Your task to perform on an android device: Open Chrome and go to settings Image 0: 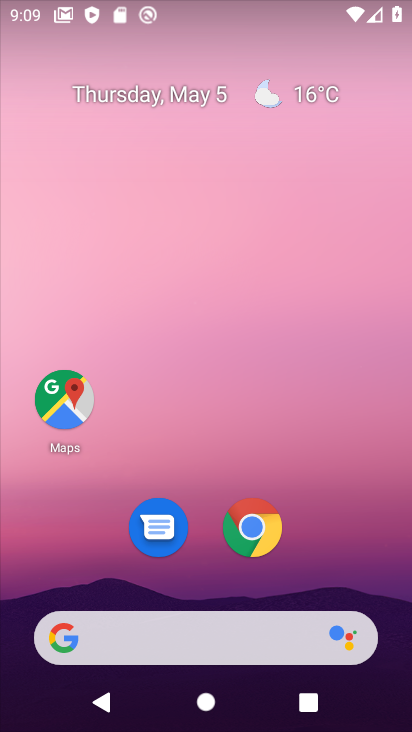
Step 0: click (264, 535)
Your task to perform on an android device: Open Chrome and go to settings Image 1: 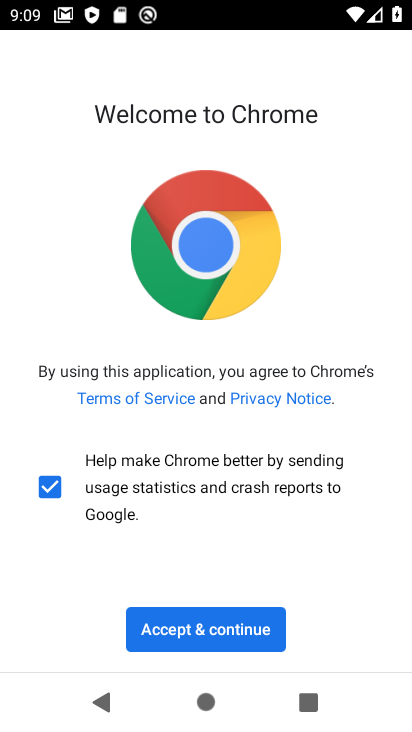
Step 1: click (260, 616)
Your task to perform on an android device: Open Chrome and go to settings Image 2: 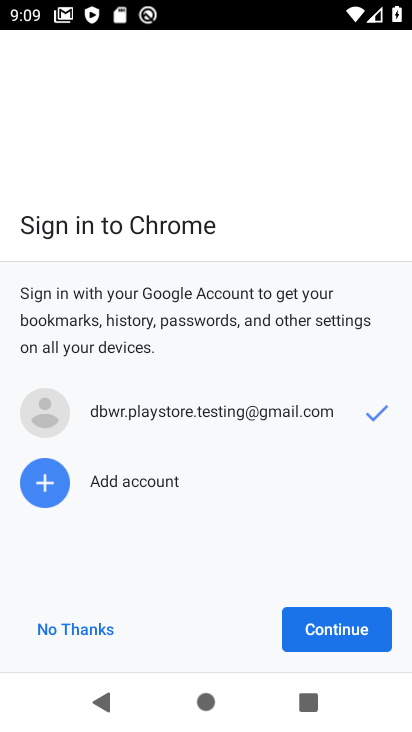
Step 2: click (360, 631)
Your task to perform on an android device: Open Chrome and go to settings Image 3: 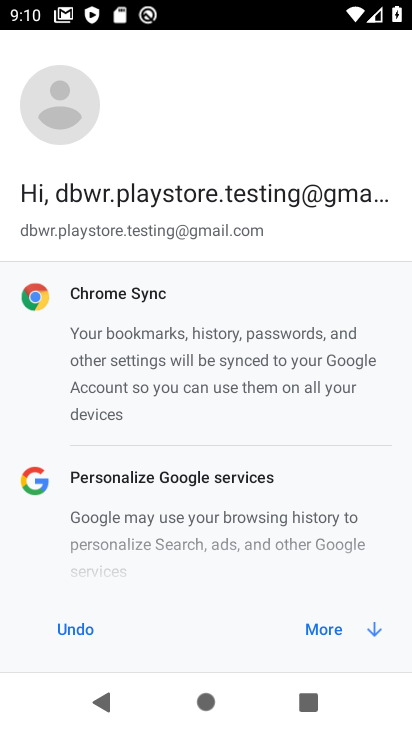
Step 3: click (361, 631)
Your task to perform on an android device: Open Chrome and go to settings Image 4: 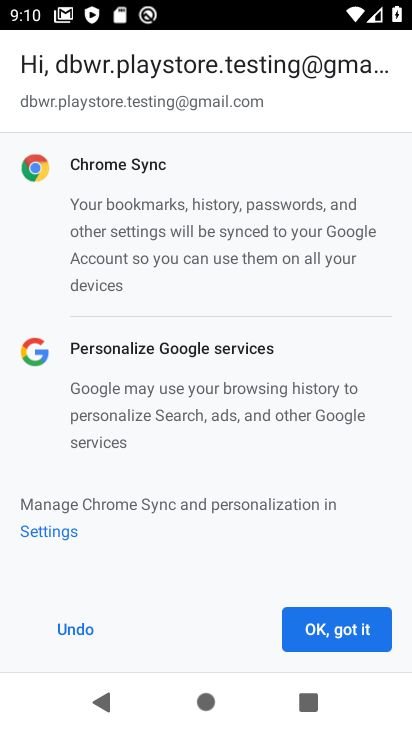
Step 4: click (361, 631)
Your task to perform on an android device: Open Chrome and go to settings Image 5: 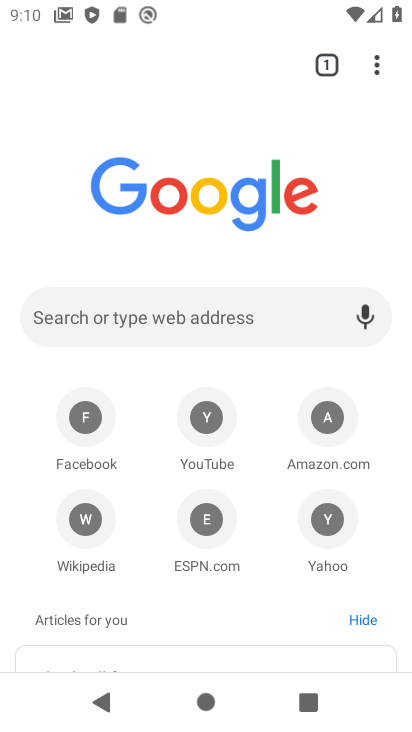
Step 5: click (391, 74)
Your task to perform on an android device: Open Chrome and go to settings Image 6: 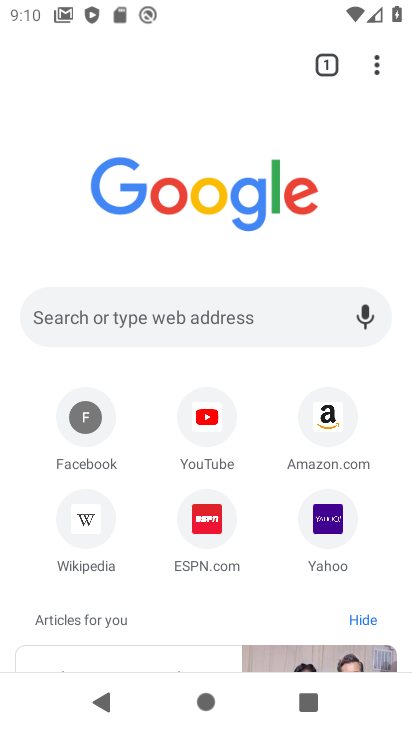
Step 6: click (371, 68)
Your task to perform on an android device: Open Chrome and go to settings Image 7: 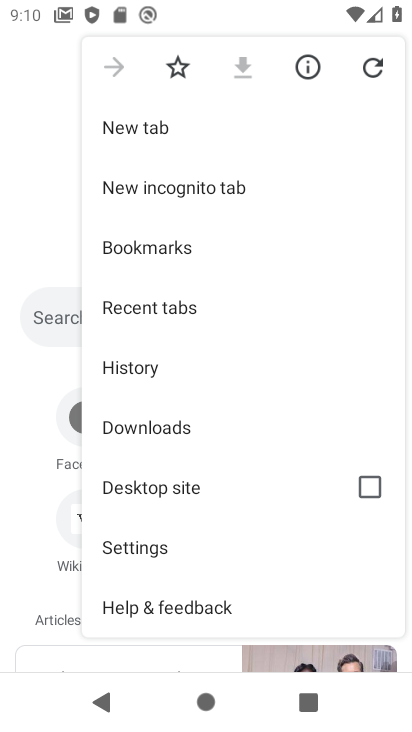
Step 7: click (369, 66)
Your task to perform on an android device: Open Chrome and go to settings Image 8: 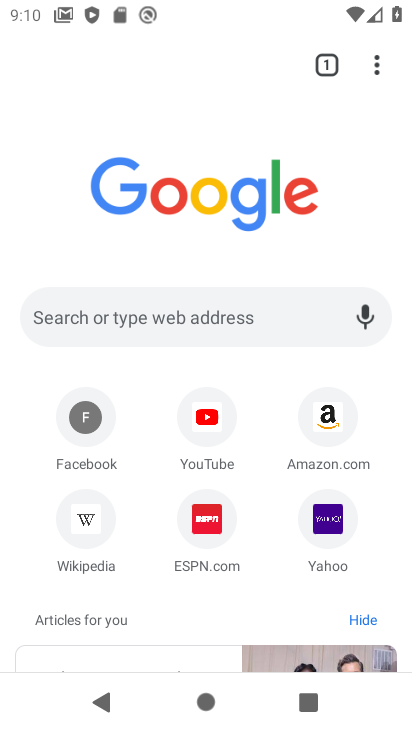
Step 8: click (382, 53)
Your task to perform on an android device: Open Chrome and go to settings Image 9: 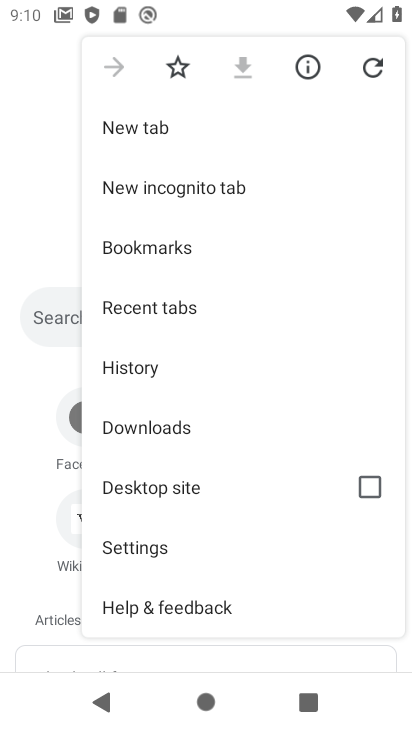
Step 9: click (151, 542)
Your task to perform on an android device: Open Chrome and go to settings Image 10: 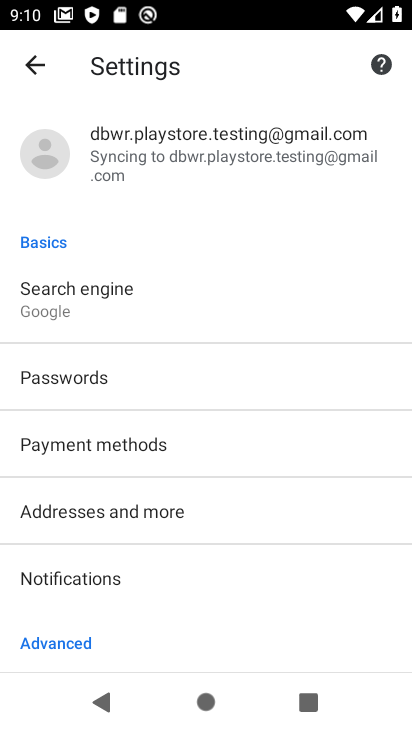
Step 10: task complete